Your task to perform on an android device: open app "LinkedIn" (install if not already installed), go to login, and select forgot password Image 0: 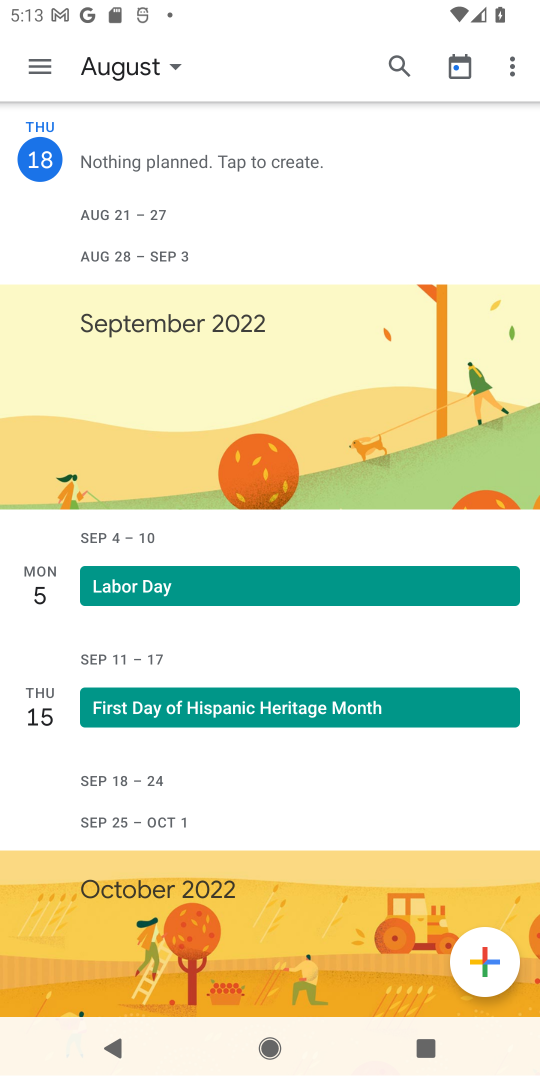
Step 0: press home button
Your task to perform on an android device: open app "LinkedIn" (install if not already installed), go to login, and select forgot password Image 1: 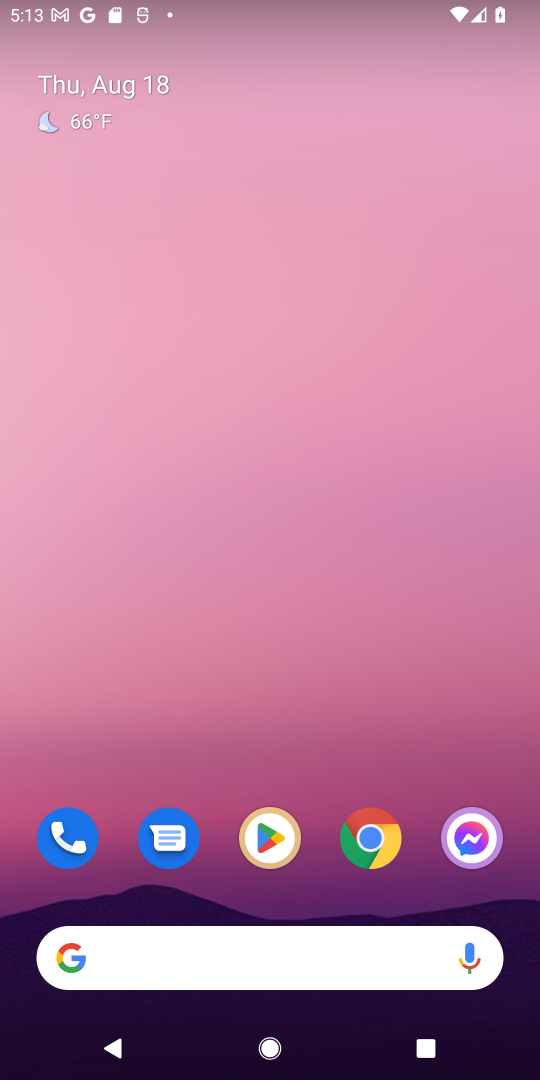
Step 1: drag from (178, 971) to (223, 41)
Your task to perform on an android device: open app "LinkedIn" (install if not already installed), go to login, and select forgot password Image 2: 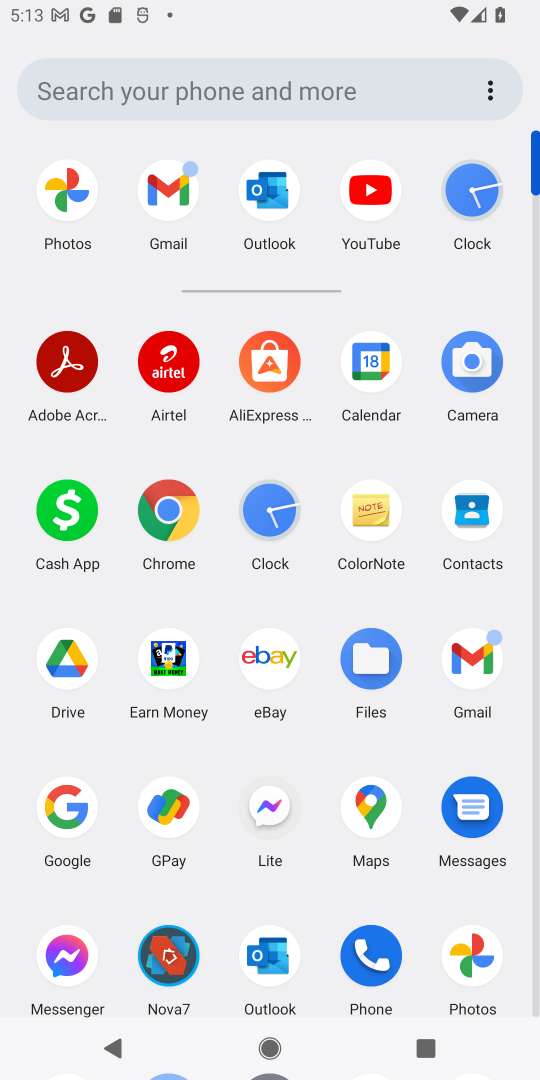
Step 2: drag from (198, 766) to (319, 412)
Your task to perform on an android device: open app "LinkedIn" (install if not already installed), go to login, and select forgot password Image 3: 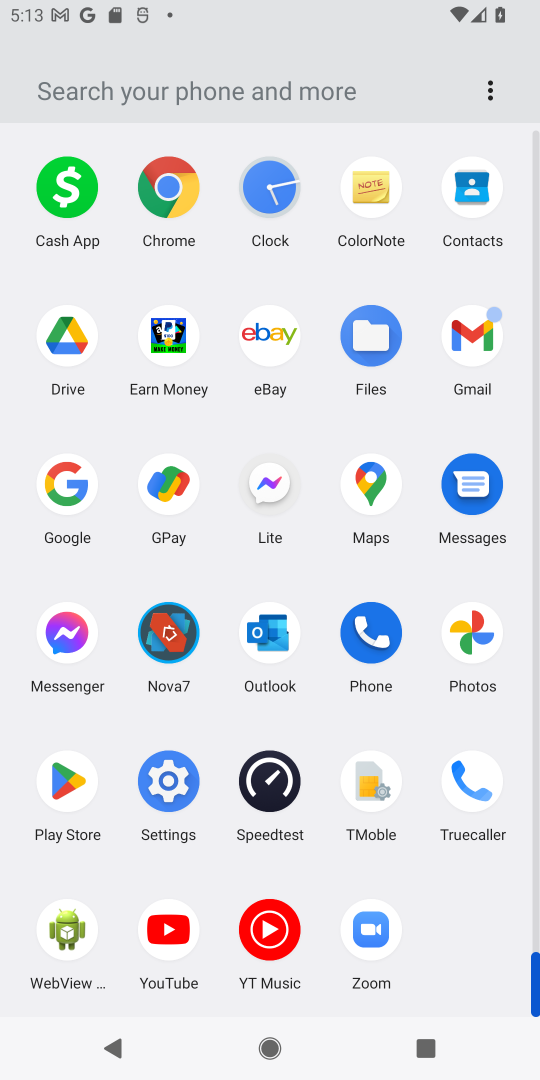
Step 3: click (70, 785)
Your task to perform on an android device: open app "LinkedIn" (install if not already installed), go to login, and select forgot password Image 4: 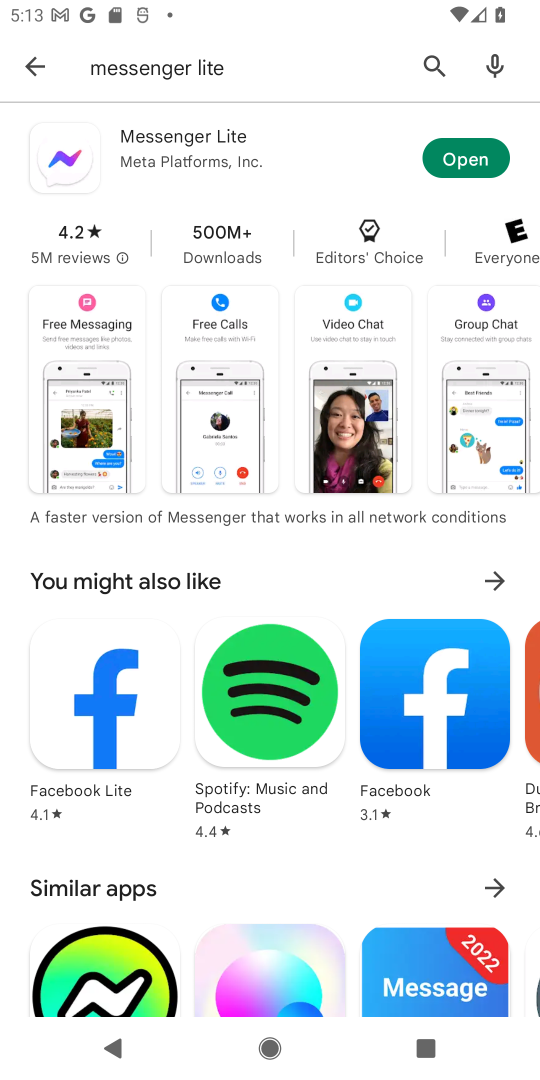
Step 4: press home button
Your task to perform on an android device: open app "LinkedIn" (install if not already installed), go to login, and select forgot password Image 5: 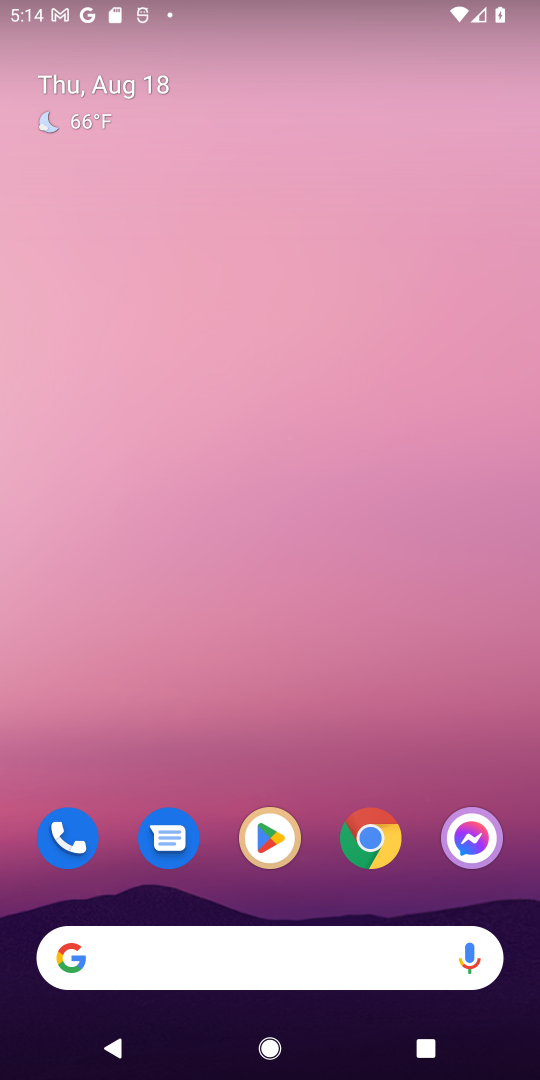
Step 5: drag from (237, 955) to (357, 69)
Your task to perform on an android device: open app "LinkedIn" (install if not already installed), go to login, and select forgot password Image 6: 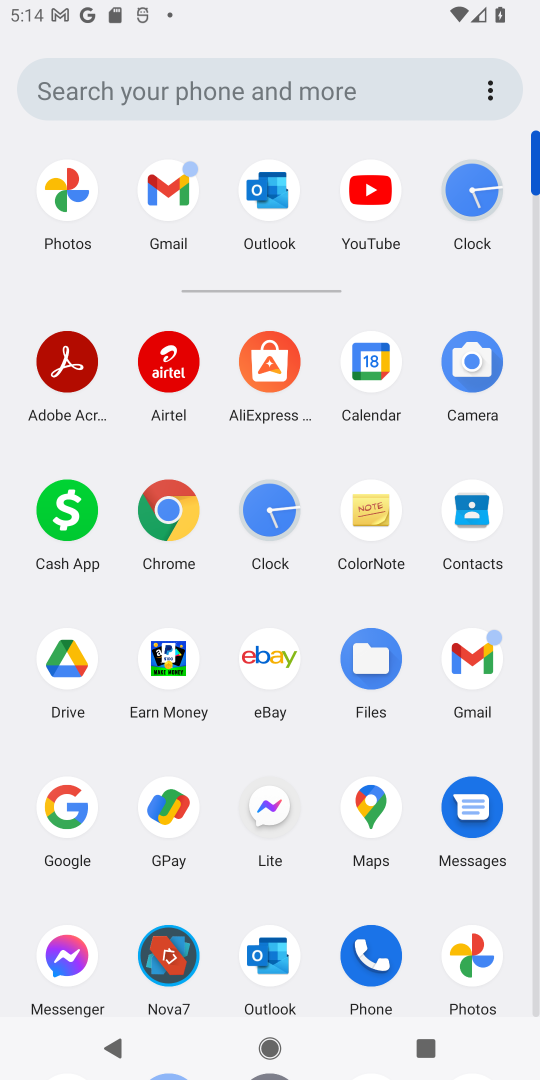
Step 6: drag from (222, 887) to (267, 467)
Your task to perform on an android device: open app "LinkedIn" (install if not already installed), go to login, and select forgot password Image 7: 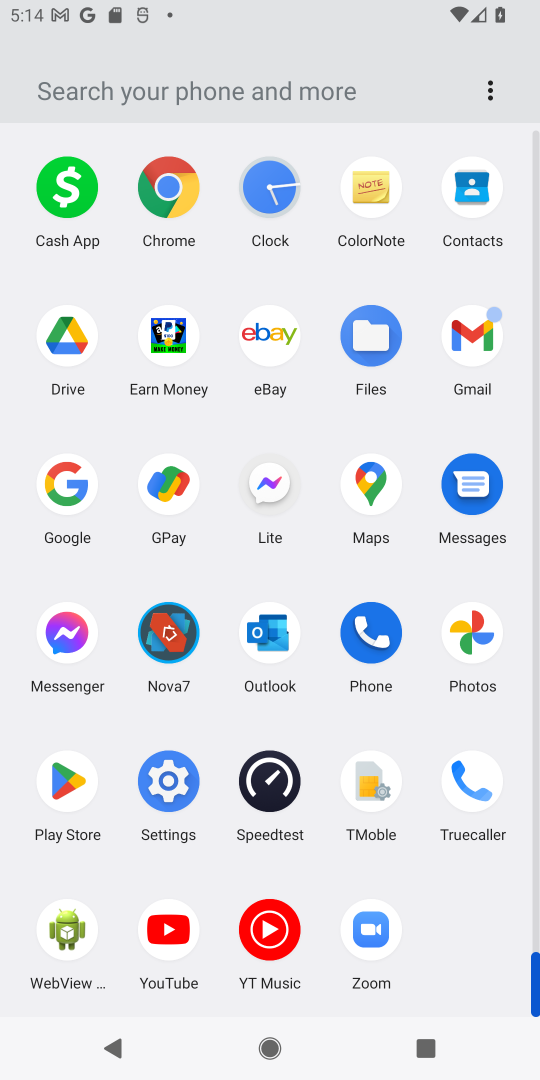
Step 7: click (67, 790)
Your task to perform on an android device: open app "LinkedIn" (install if not already installed), go to login, and select forgot password Image 8: 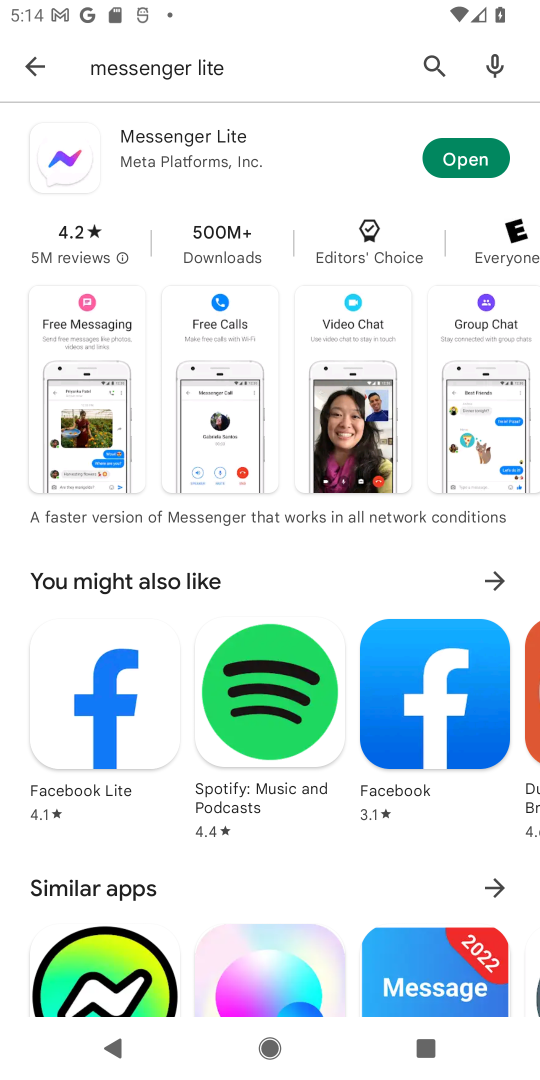
Step 8: click (440, 78)
Your task to perform on an android device: open app "LinkedIn" (install if not already installed), go to login, and select forgot password Image 9: 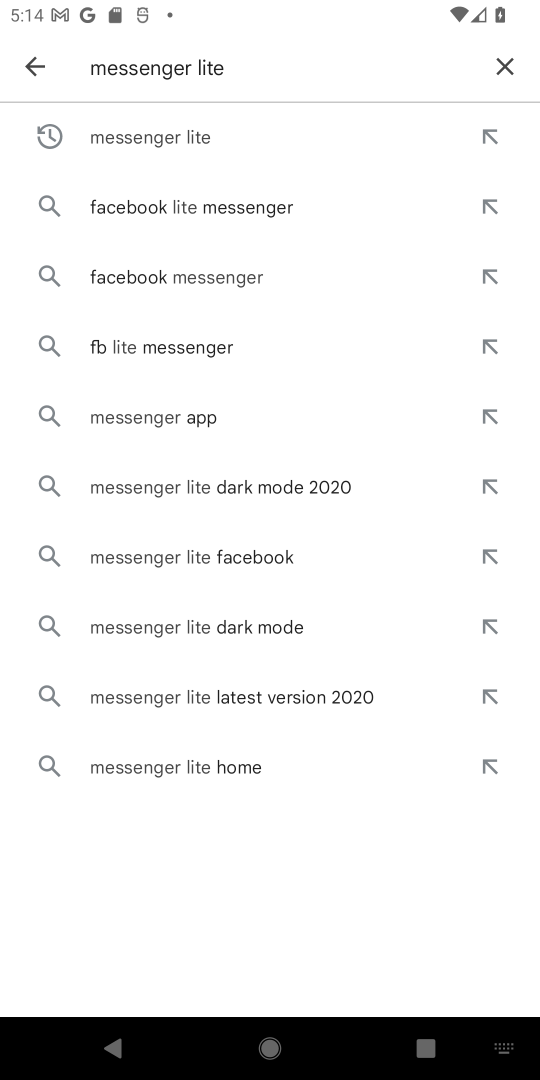
Step 9: press back button
Your task to perform on an android device: open app "LinkedIn" (install if not already installed), go to login, and select forgot password Image 10: 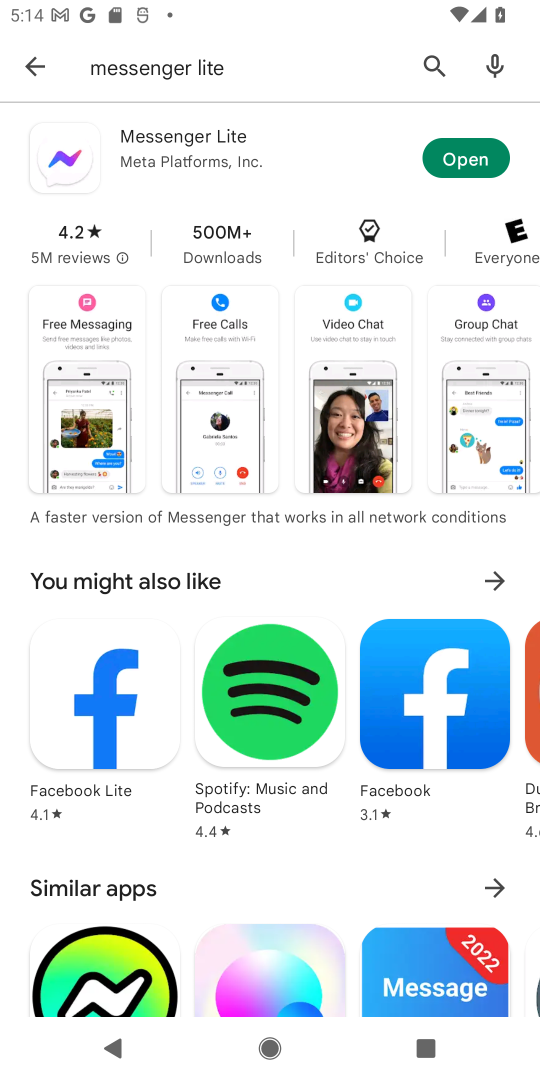
Step 10: press back button
Your task to perform on an android device: open app "LinkedIn" (install if not already installed), go to login, and select forgot password Image 11: 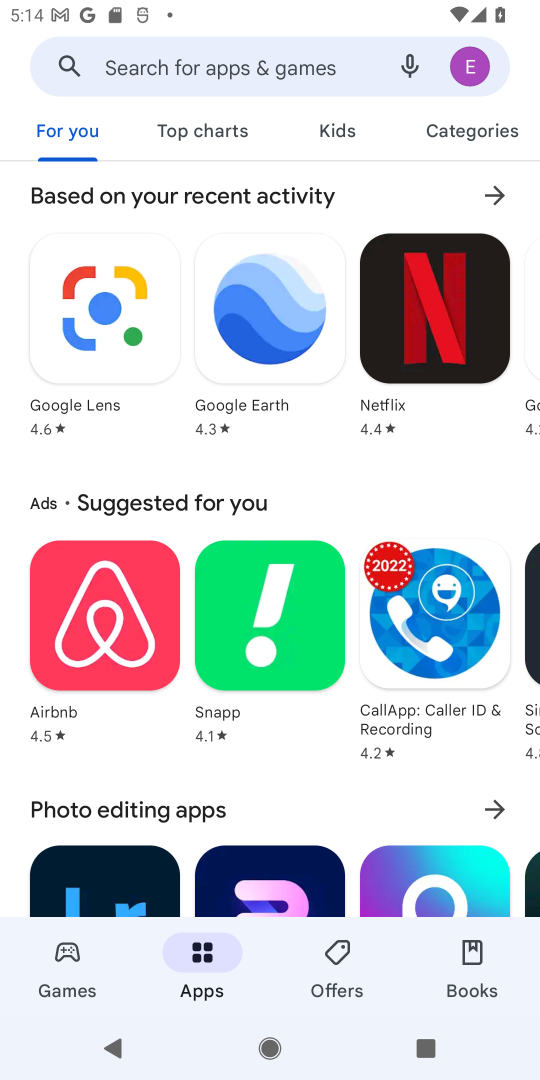
Step 11: click (184, 62)
Your task to perform on an android device: open app "LinkedIn" (install if not already installed), go to login, and select forgot password Image 12: 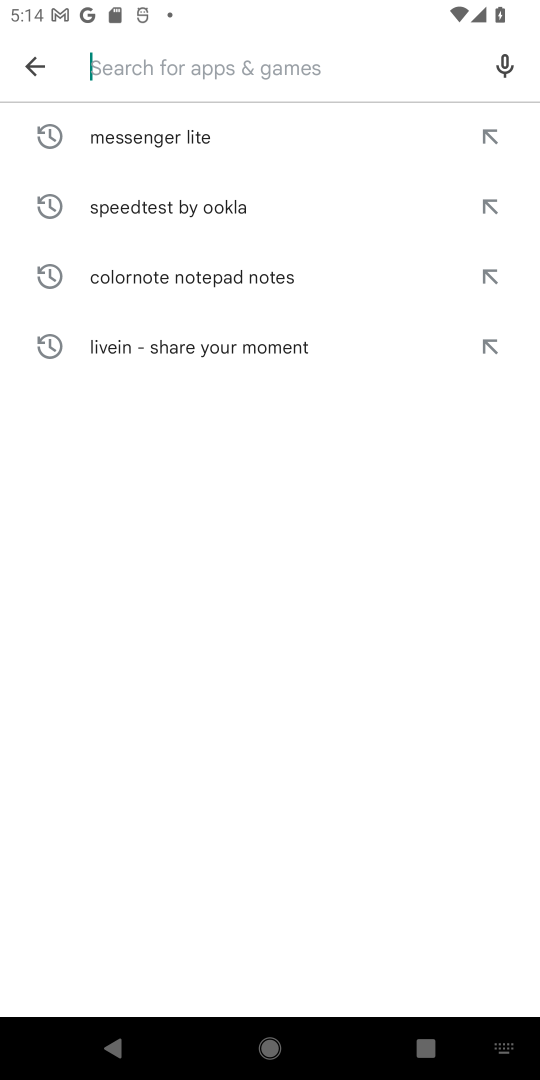
Step 12: type "LinkedIn"
Your task to perform on an android device: open app "LinkedIn" (install if not already installed), go to login, and select forgot password Image 13: 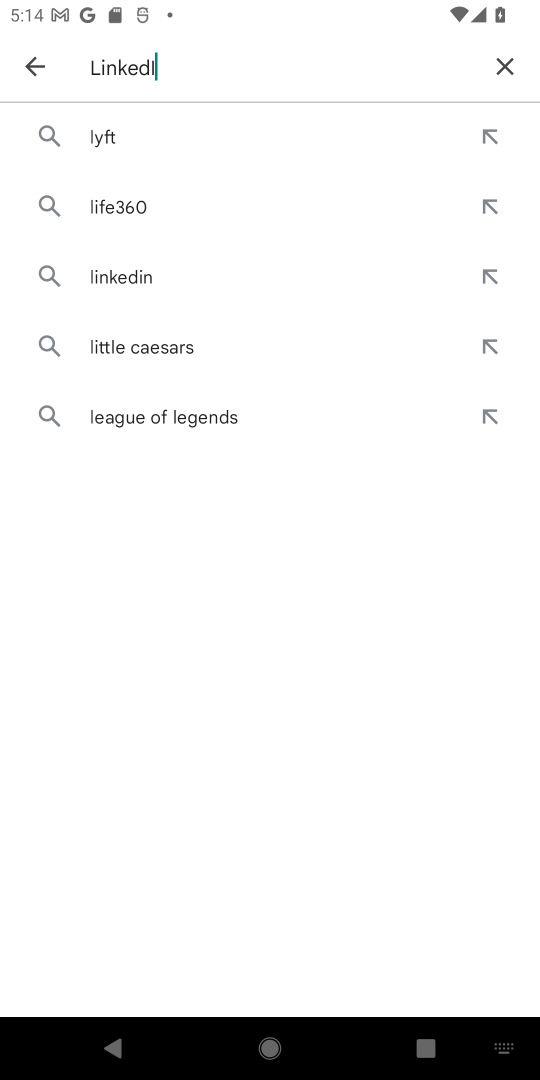
Step 13: type ""
Your task to perform on an android device: open app "LinkedIn" (install if not already installed), go to login, and select forgot password Image 14: 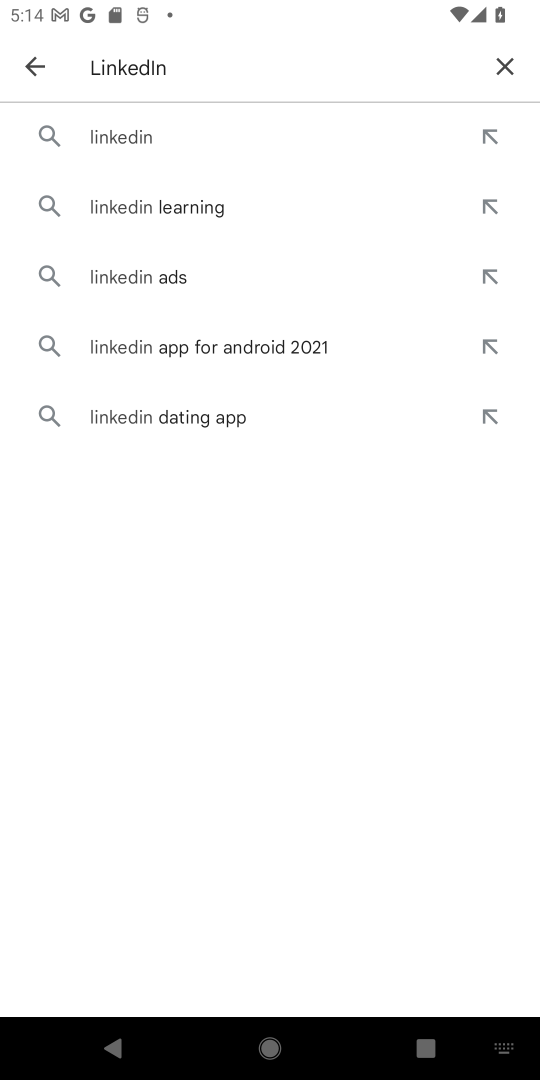
Step 14: click (153, 134)
Your task to perform on an android device: open app "LinkedIn" (install if not already installed), go to login, and select forgot password Image 15: 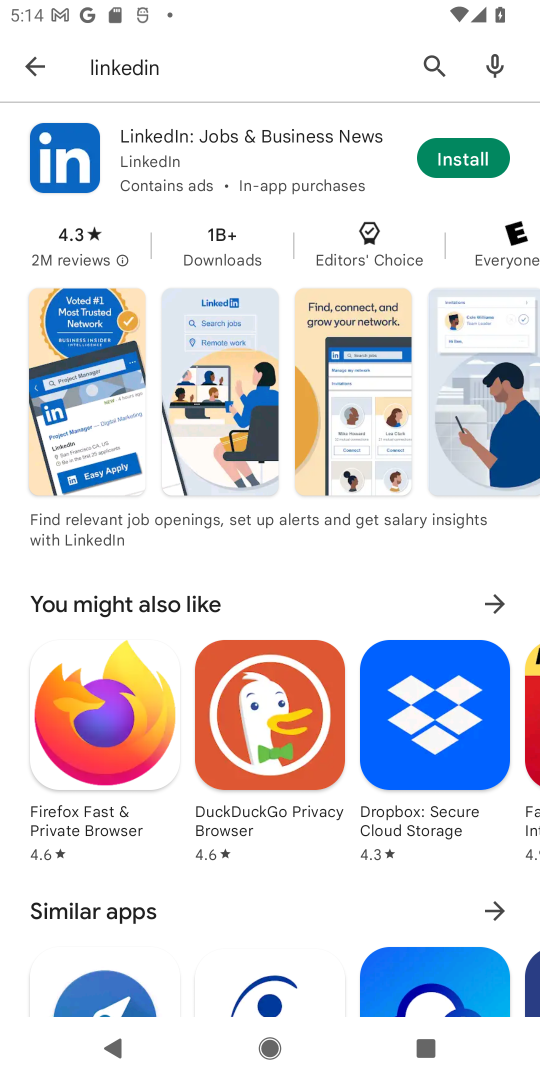
Step 15: click (444, 164)
Your task to perform on an android device: open app "LinkedIn" (install if not already installed), go to login, and select forgot password Image 16: 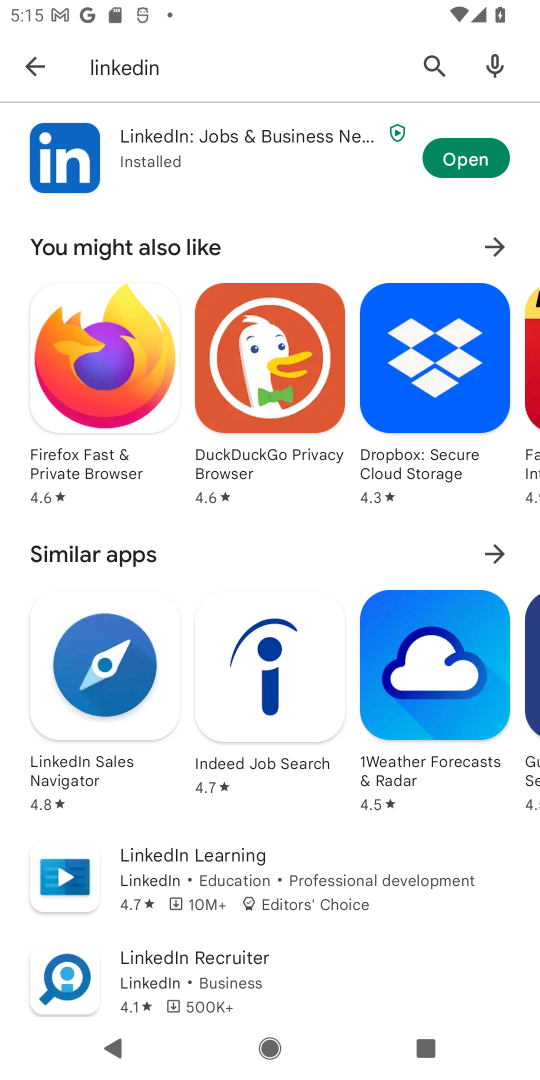
Step 16: click (486, 176)
Your task to perform on an android device: open app "LinkedIn" (install if not already installed), go to login, and select forgot password Image 17: 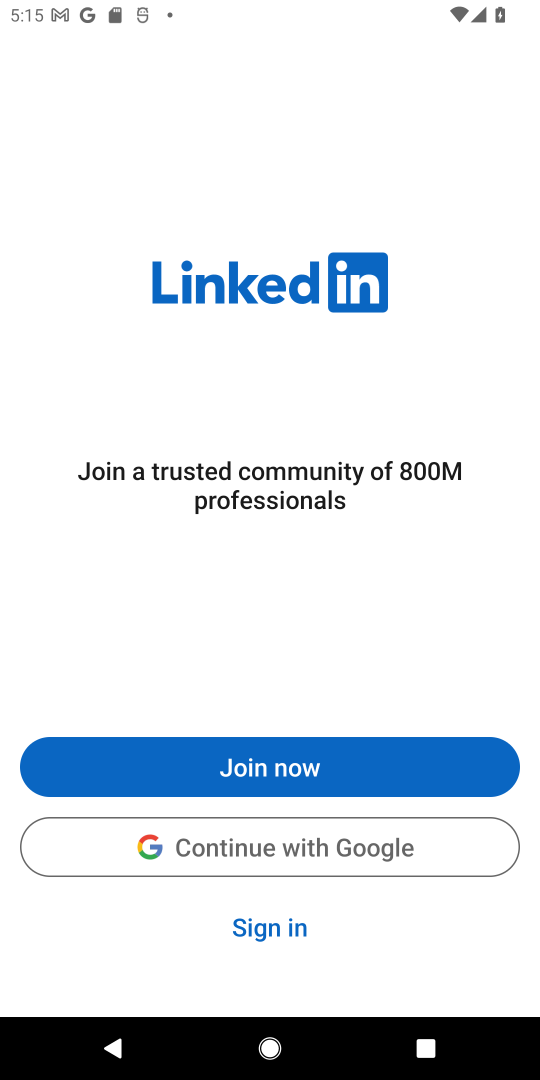
Step 17: click (278, 936)
Your task to perform on an android device: open app "LinkedIn" (install if not already installed), go to login, and select forgot password Image 18: 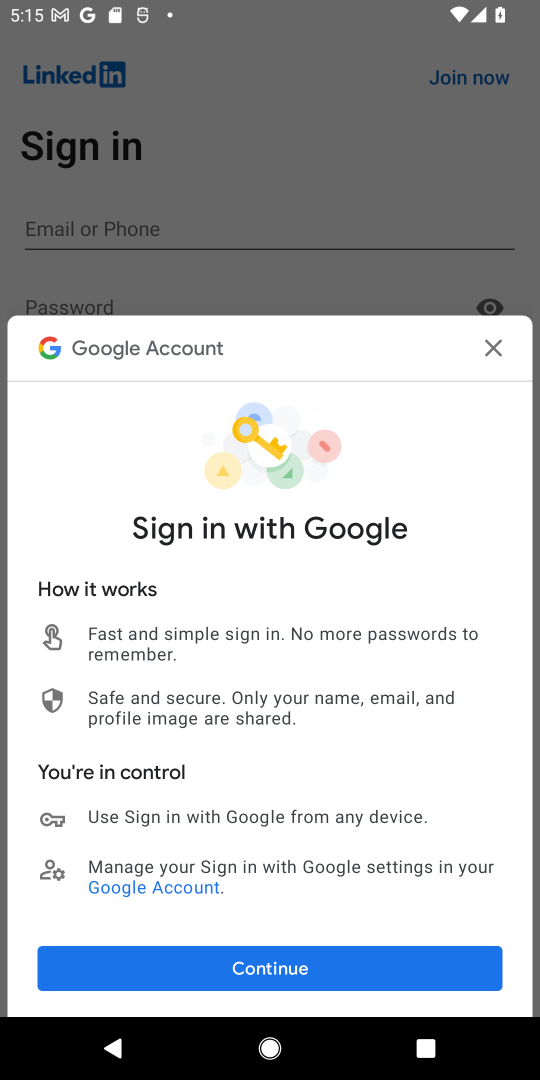
Step 18: click (491, 357)
Your task to perform on an android device: open app "LinkedIn" (install if not already installed), go to login, and select forgot password Image 19: 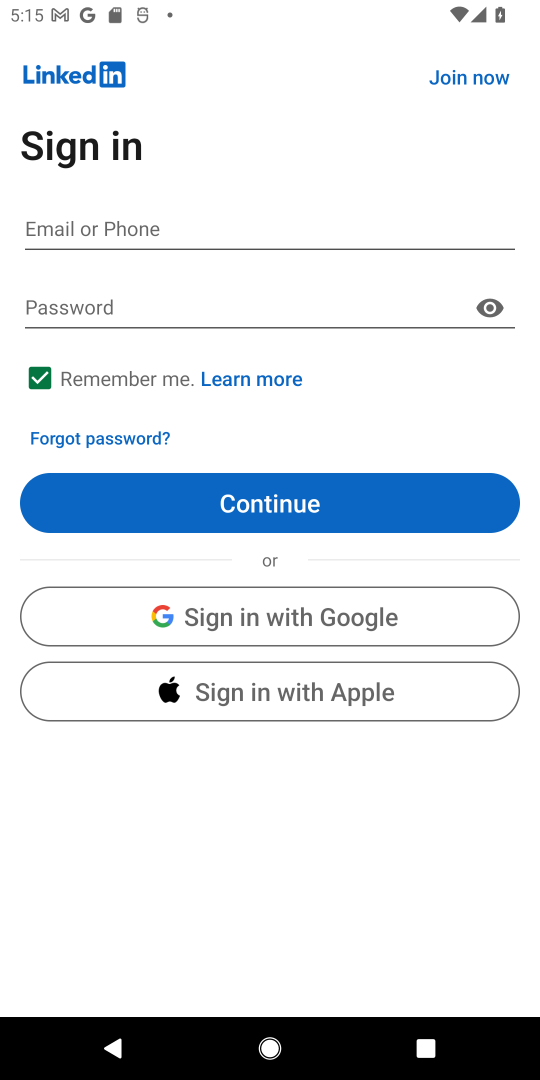
Step 19: click (140, 431)
Your task to perform on an android device: open app "LinkedIn" (install if not already installed), go to login, and select forgot password Image 20: 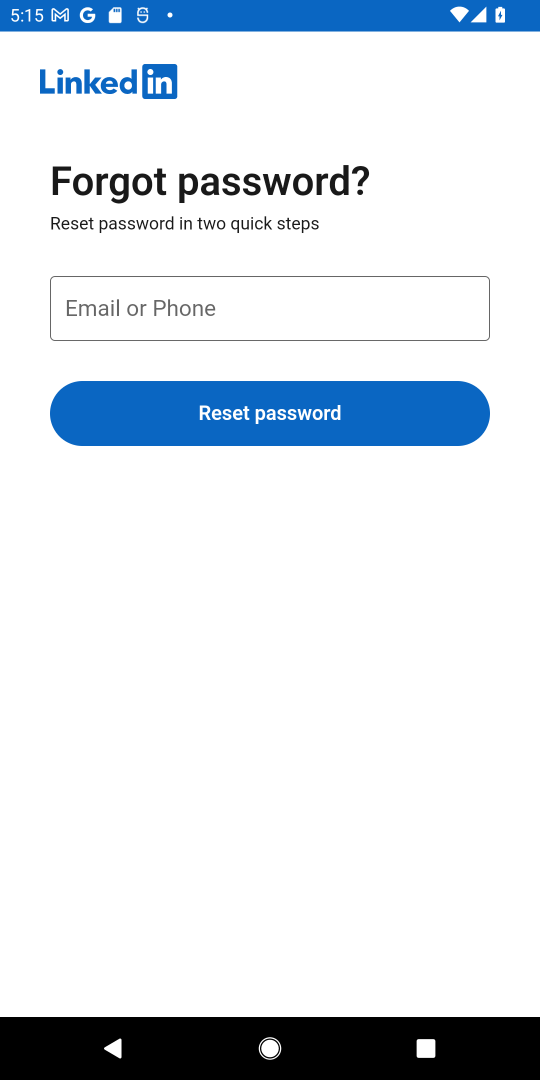
Step 20: task complete